Your task to perform on an android device: clear all cookies in the chrome app Image 0: 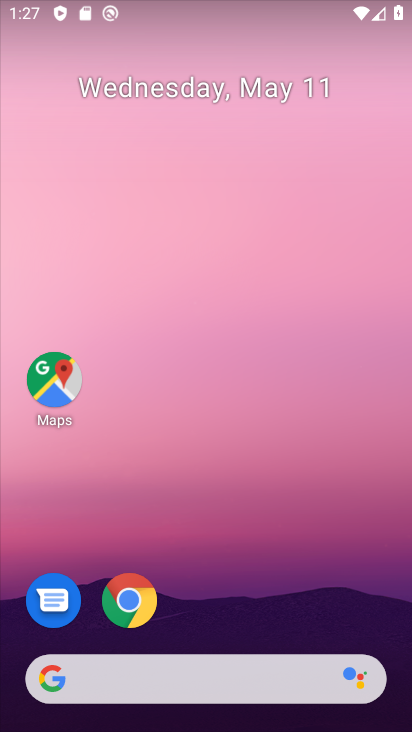
Step 0: drag from (267, 588) to (292, 342)
Your task to perform on an android device: clear all cookies in the chrome app Image 1: 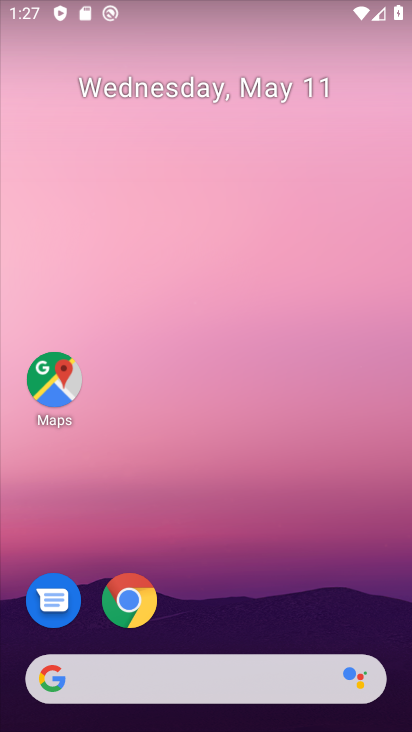
Step 1: drag from (210, 591) to (256, 215)
Your task to perform on an android device: clear all cookies in the chrome app Image 2: 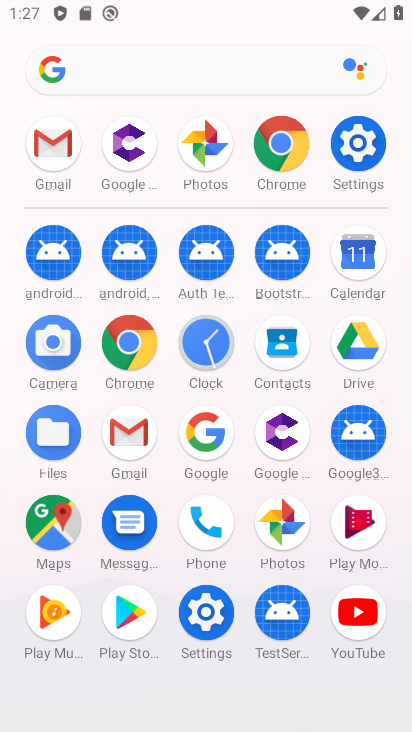
Step 2: click (274, 144)
Your task to perform on an android device: clear all cookies in the chrome app Image 3: 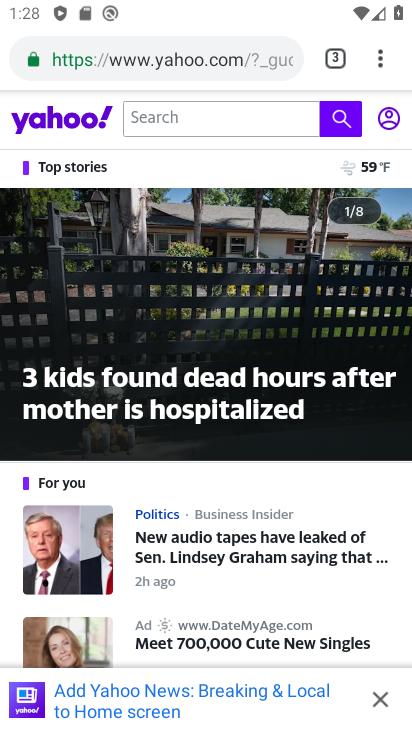
Step 3: click (369, 47)
Your task to perform on an android device: clear all cookies in the chrome app Image 4: 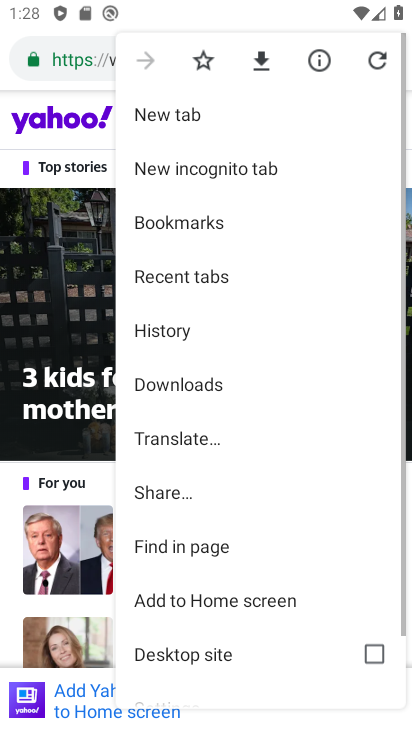
Step 4: drag from (217, 565) to (259, 296)
Your task to perform on an android device: clear all cookies in the chrome app Image 5: 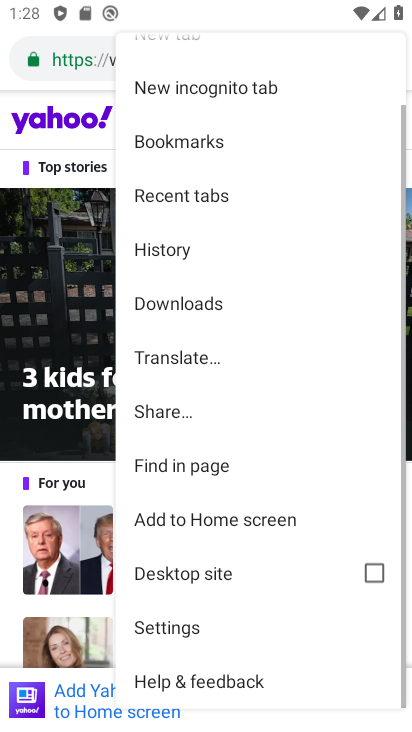
Step 5: click (177, 633)
Your task to perform on an android device: clear all cookies in the chrome app Image 6: 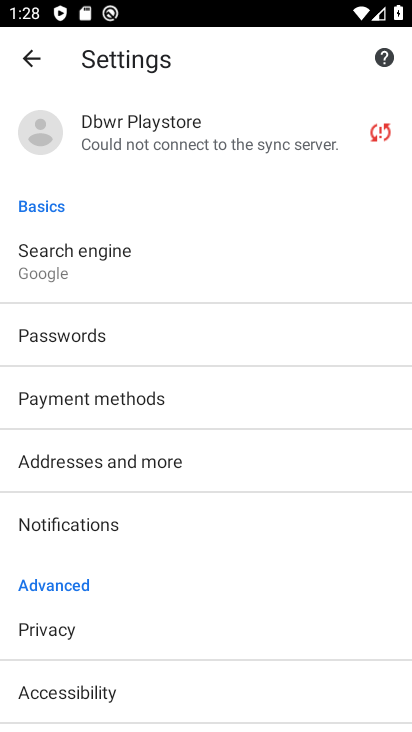
Step 6: click (49, 625)
Your task to perform on an android device: clear all cookies in the chrome app Image 7: 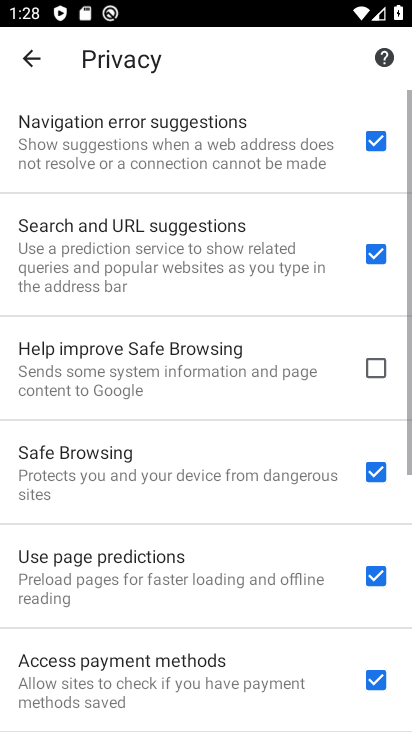
Step 7: drag from (161, 646) to (270, 154)
Your task to perform on an android device: clear all cookies in the chrome app Image 8: 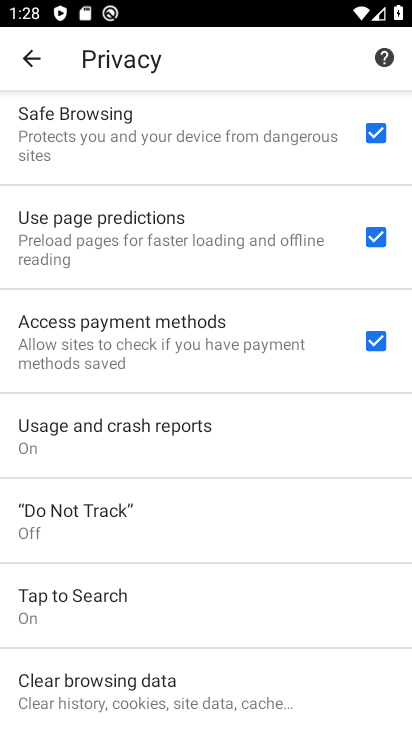
Step 8: click (197, 688)
Your task to perform on an android device: clear all cookies in the chrome app Image 9: 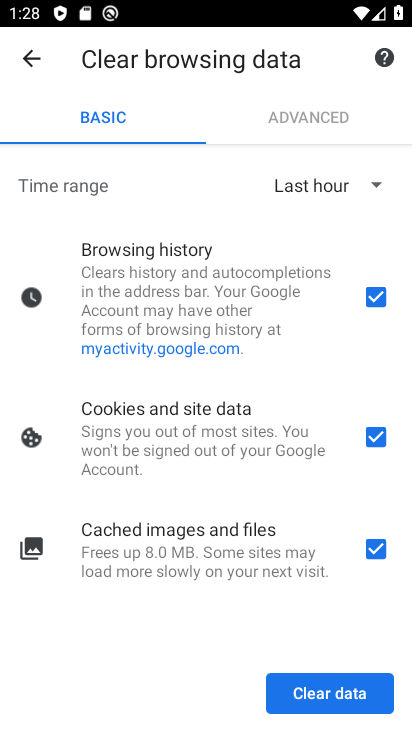
Step 9: click (319, 683)
Your task to perform on an android device: clear all cookies in the chrome app Image 10: 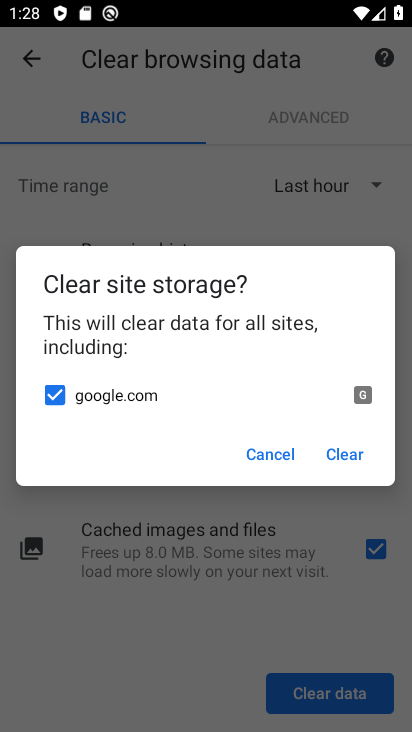
Step 10: click (339, 451)
Your task to perform on an android device: clear all cookies in the chrome app Image 11: 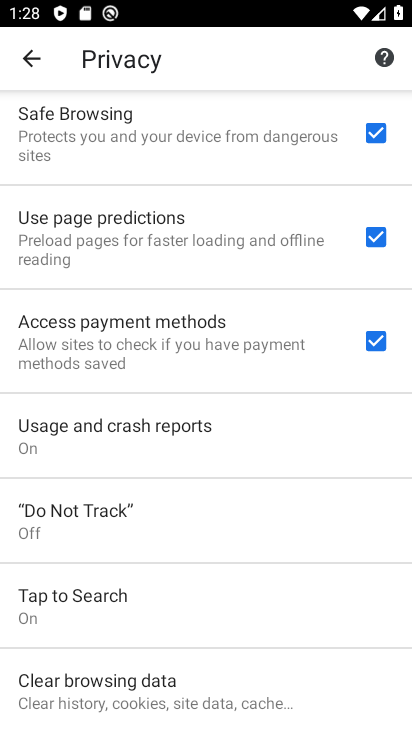
Step 11: task complete